Your task to perform on an android device: Add "macbook pro 15 inch" to the cart on costco.com, then select checkout. Image 0: 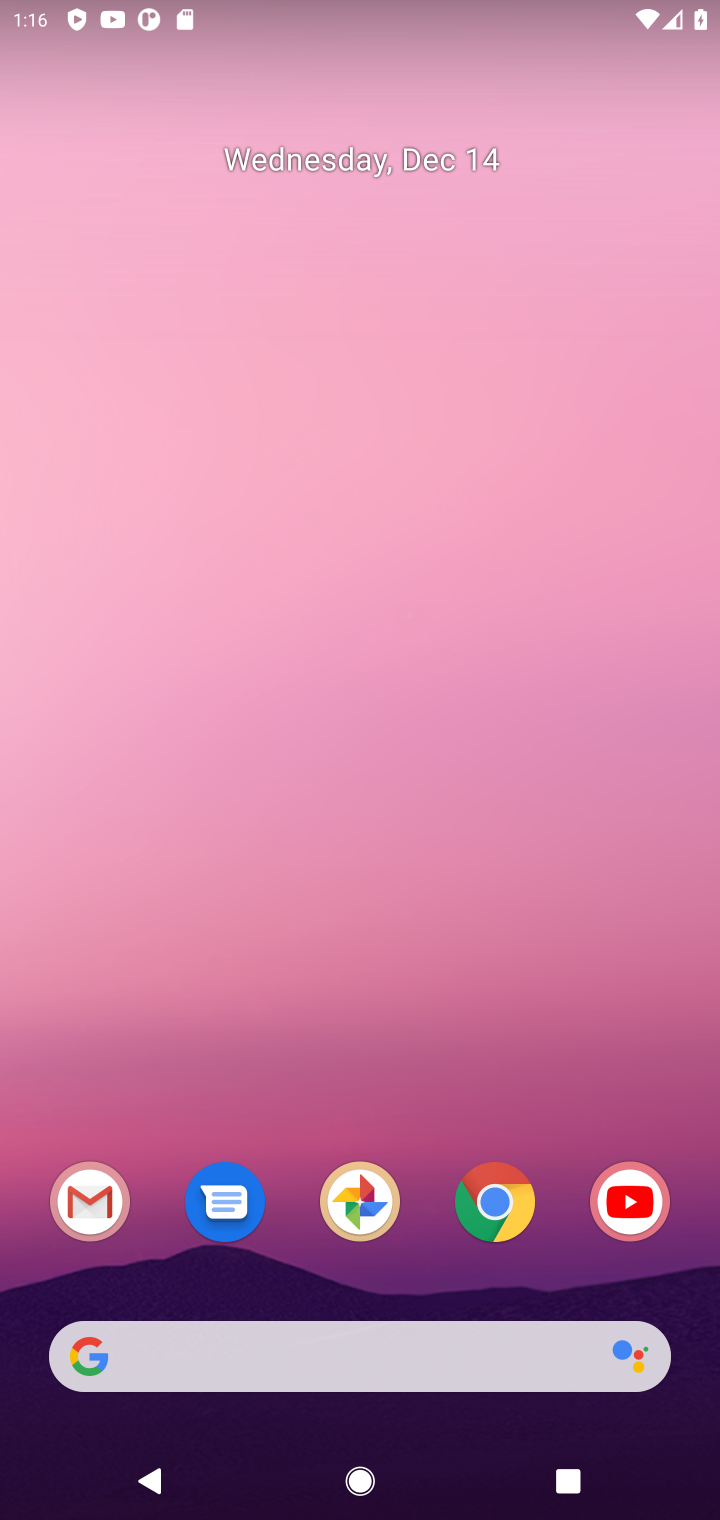
Step 0: click (478, 1205)
Your task to perform on an android device: Add "macbook pro 15 inch" to the cart on costco.com, then select checkout. Image 1: 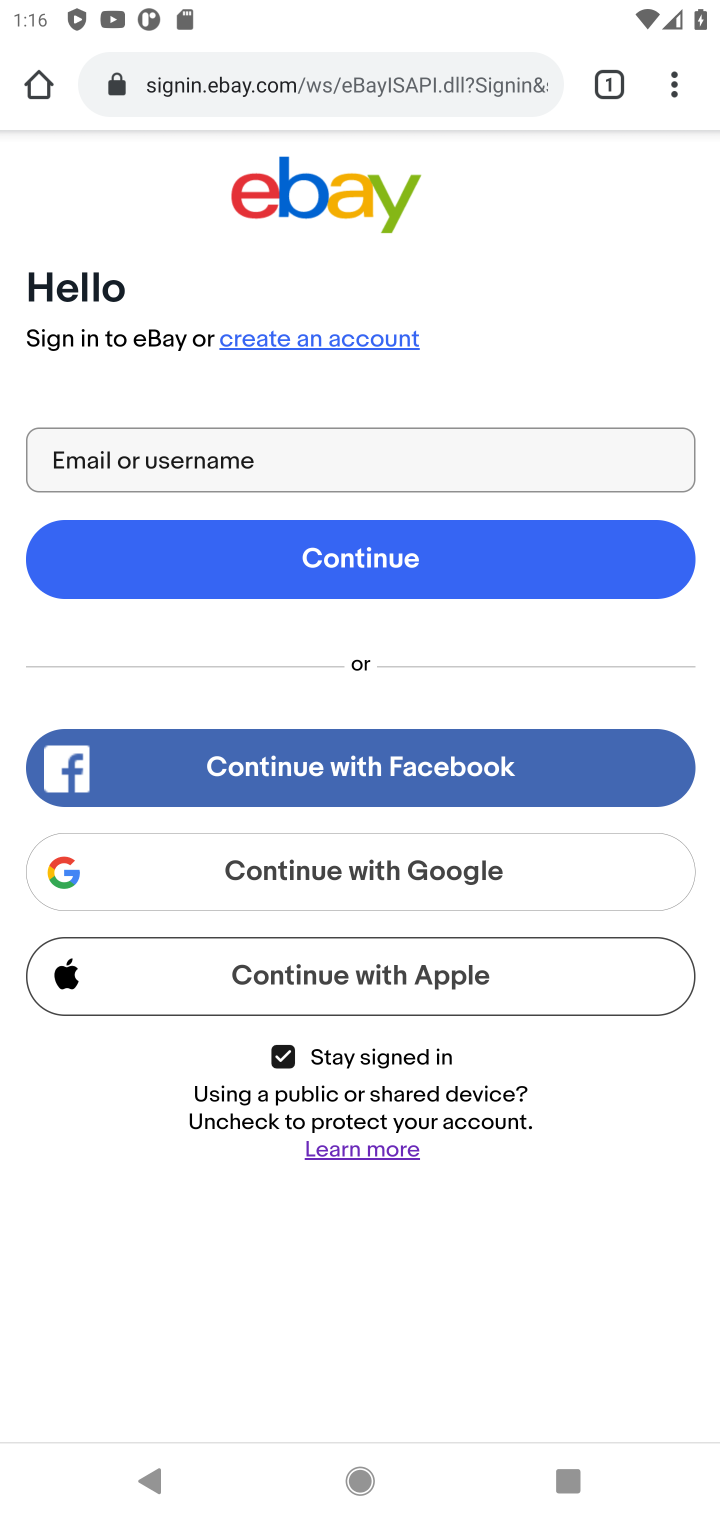
Step 1: click (436, 94)
Your task to perform on an android device: Add "macbook pro 15 inch" to the cart on costco.com, then select checkout. Image 2: 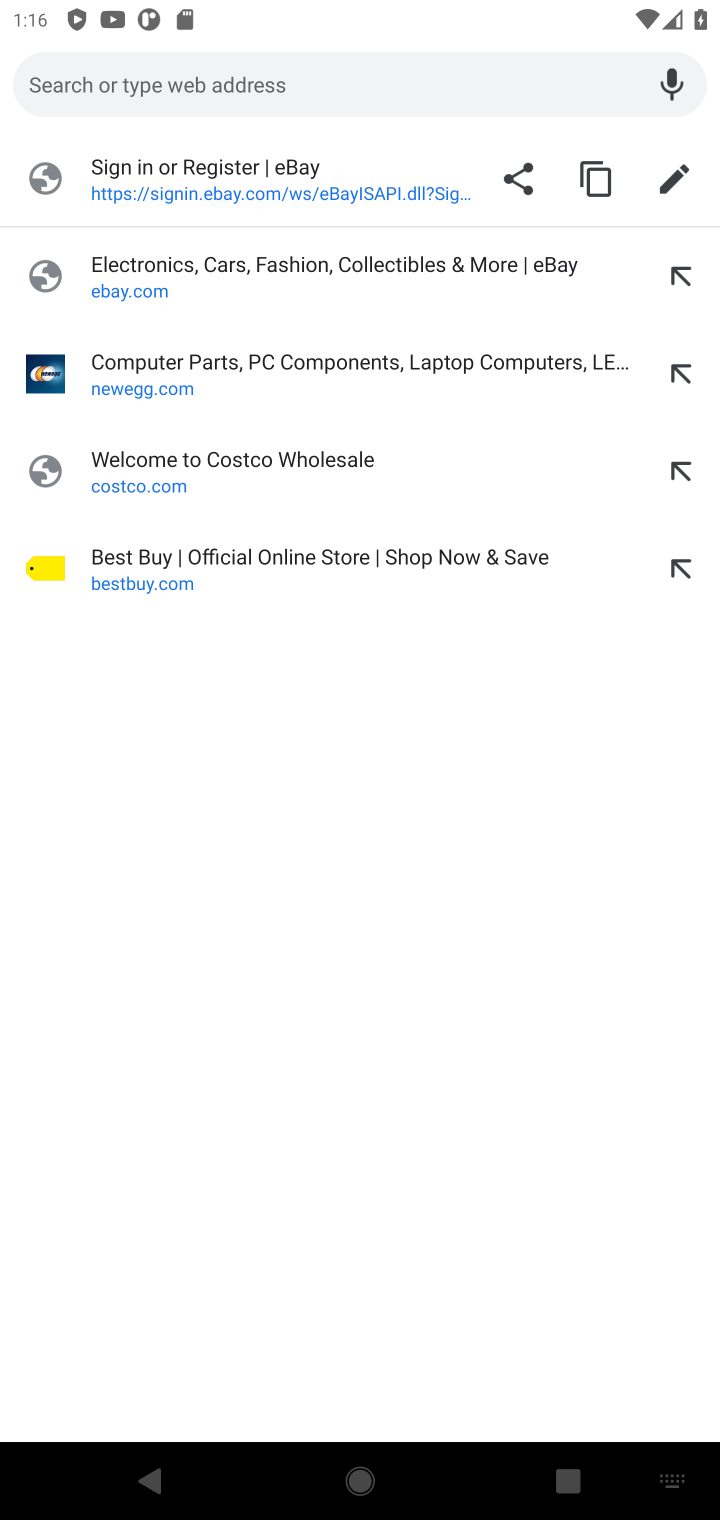
Step 2: click (195, 487)
Your task to perform on an android device: Add "macbook pro 15 inch" to the cart on costco.com, then select checkout. Image 3: 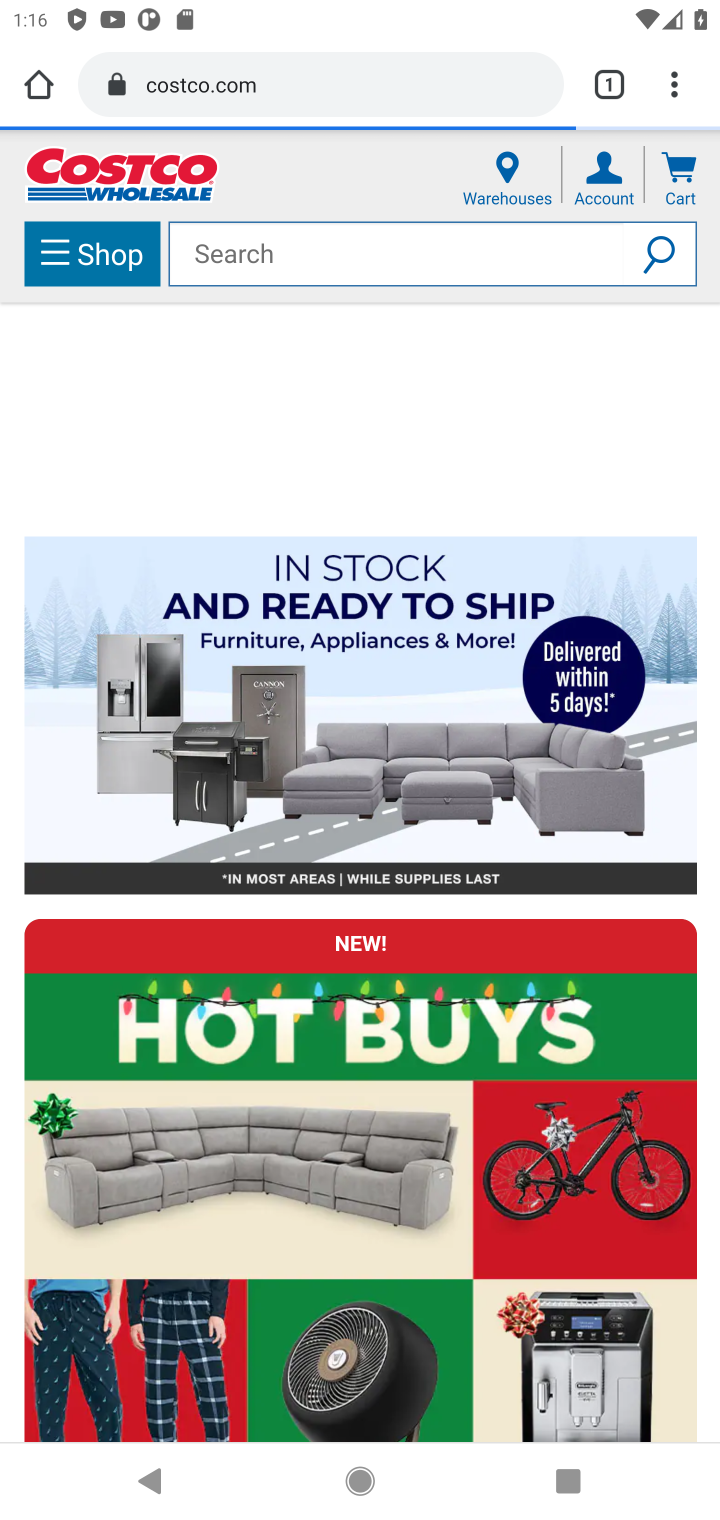
Step 3: click (428, 241)
Your task to perform on an android device: Add "macbook pro 15 inch" to the cart on costco.com, then select checkout. Image 4: 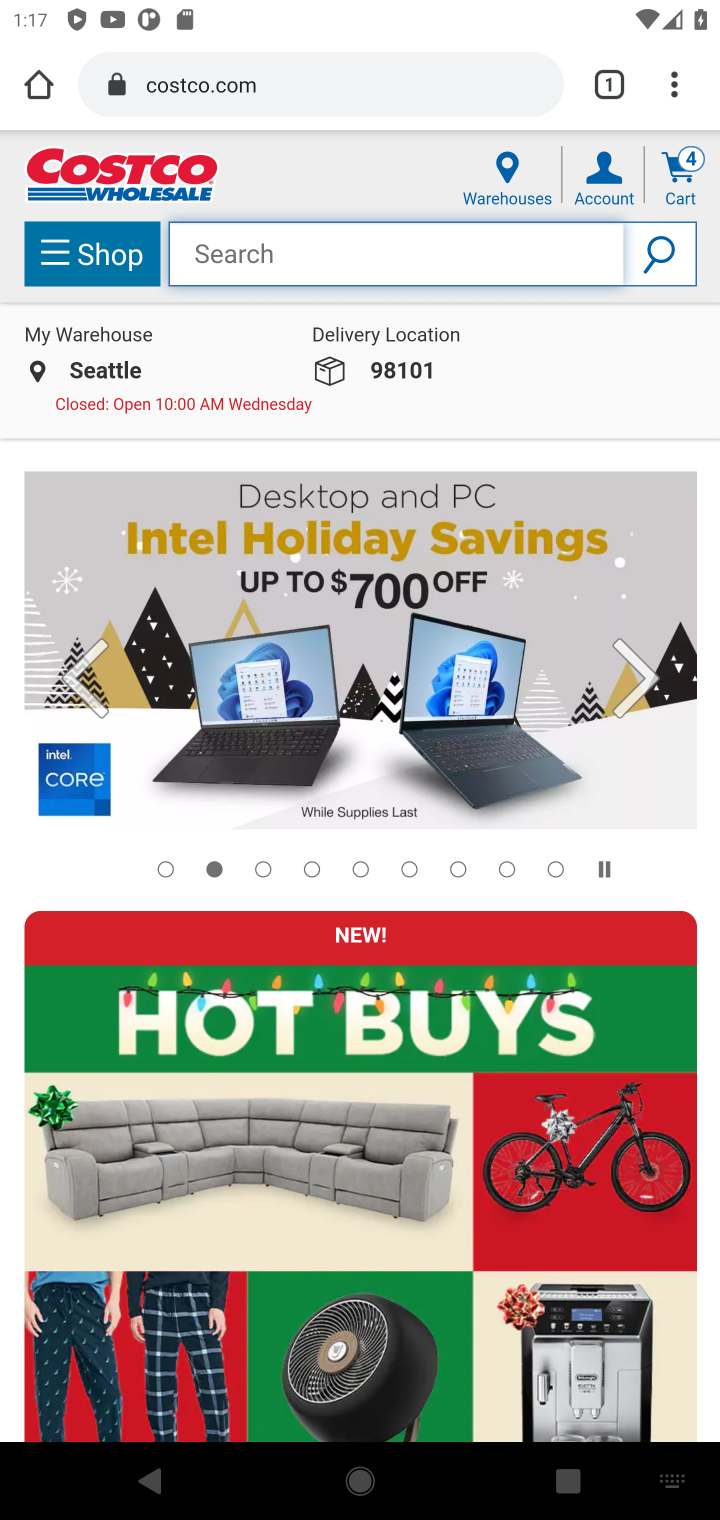
Step 4: type "MACBOOK PRO 15 INCH"
Your task to perform on an android device: Add "macbook pro 15 inch" to the cart on costco.com, then select checkout. Image 5: 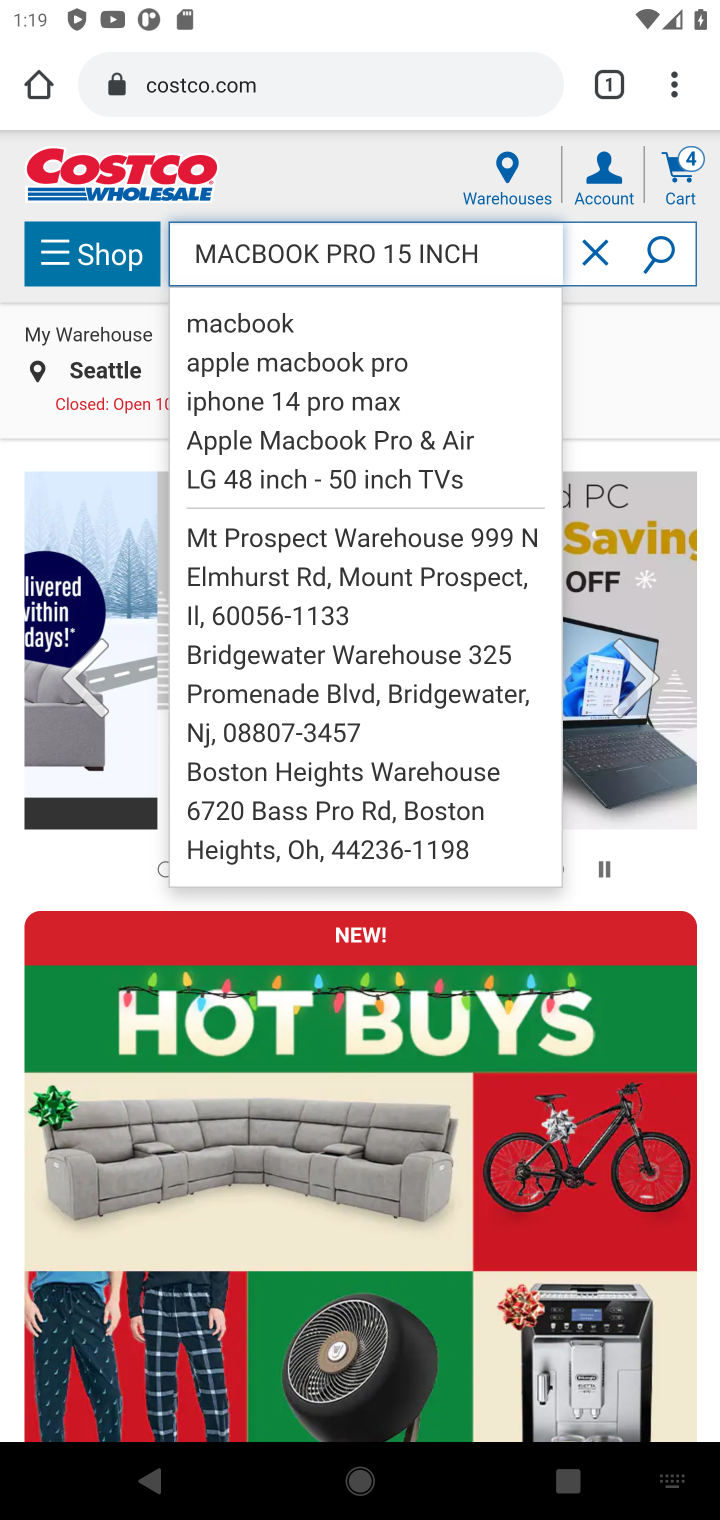
Step 5: task complete